Your task to perform on an android device: What is the news today? Image 0: 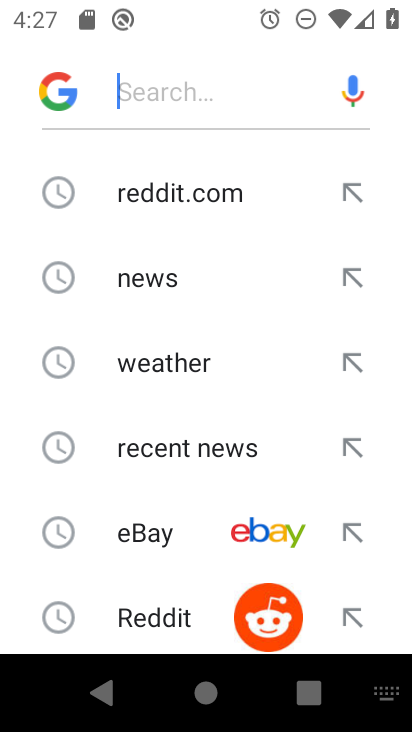
Step 0: click (136, 287)
Your task to perform on an android device: What is the news today? Image 1: 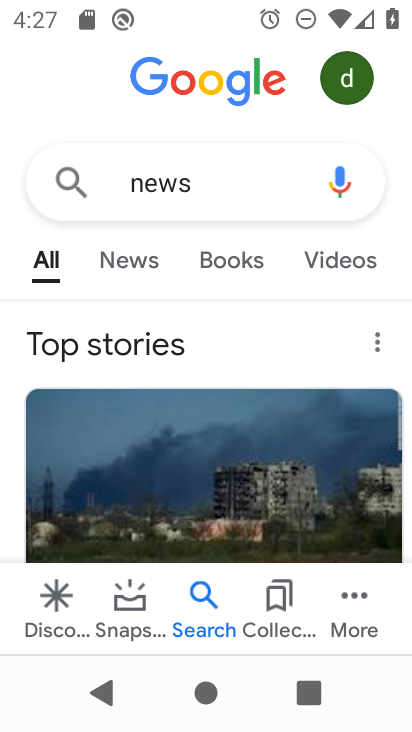
Step 1: task complete